Your task to perform on an android device: Go to display settings Image 0: 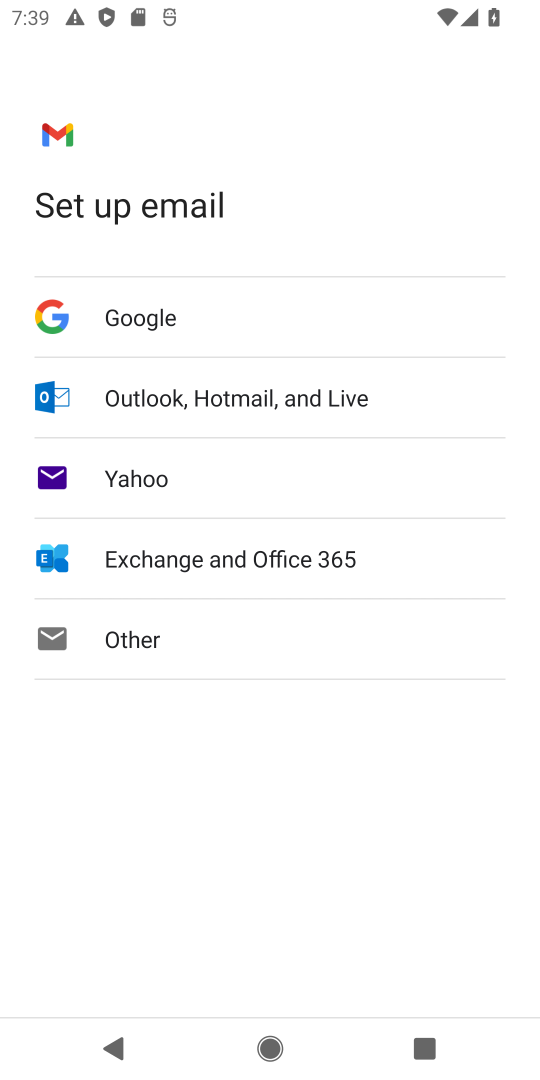
Step 0: press back button
Your task to perform on an android device: Go to display settings Image 1: 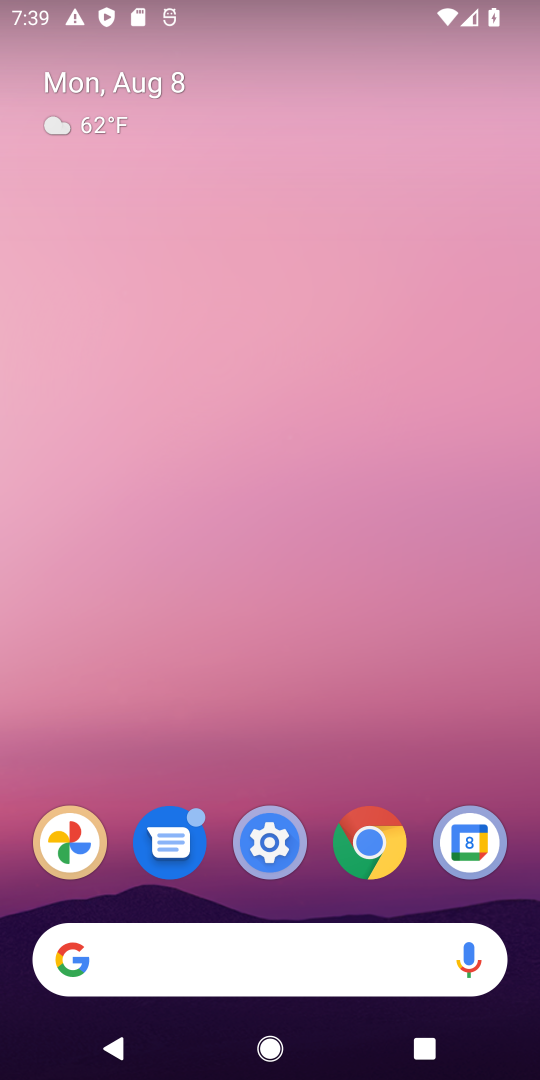
Step 1: click (257, 850)
Your task to perform on an android device: Go to display settings Image 2: 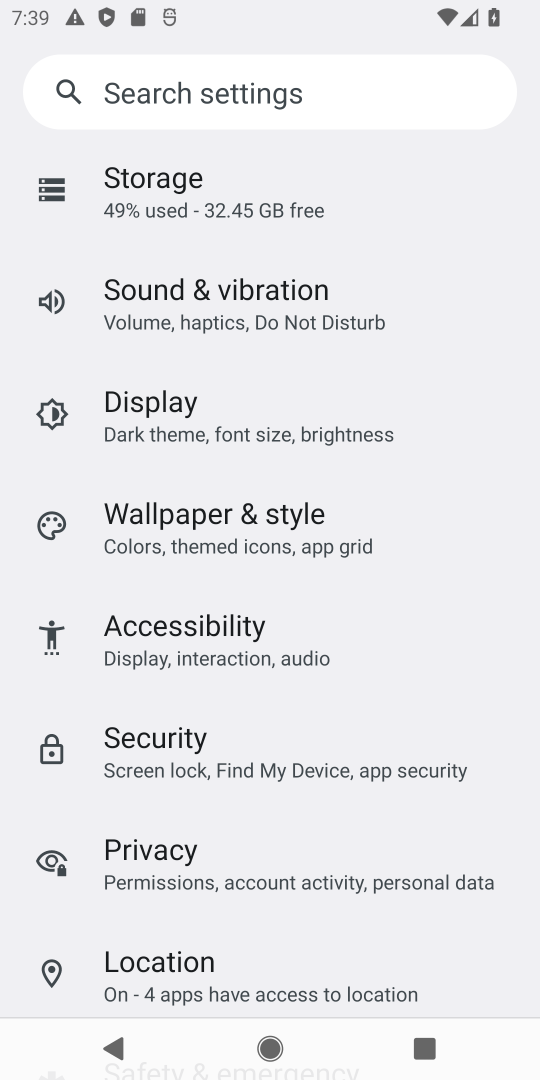
Step 2: click (134, 413)
Your task to perform on an android device: Go to display settings Image 3: 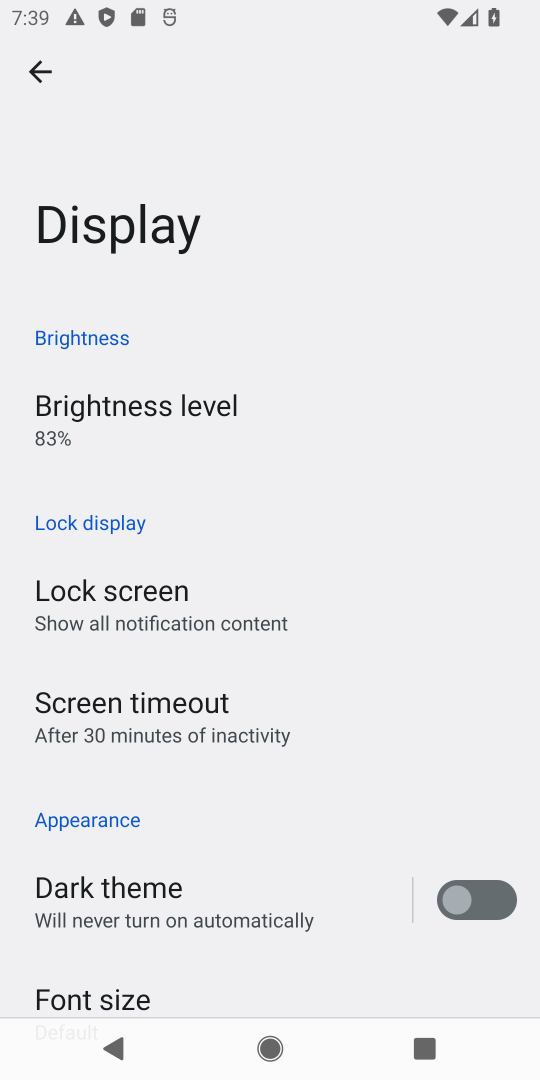
Step 3: task complete